Your task to perform on an android device: Go to notification settings Image 0: 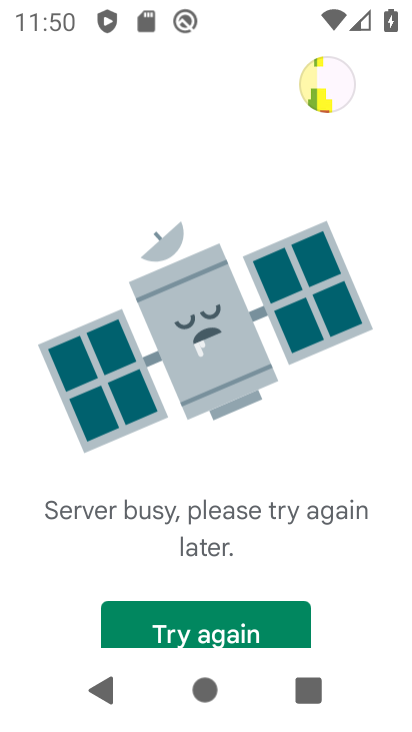
Step 0: press home button
Your task to perform on an android device: Go to notification settings Image 1: 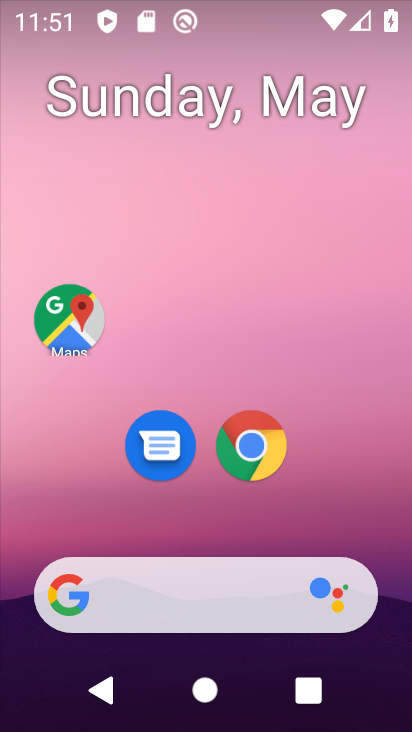
Step 1: drag from (286, 516) to (308, 57)
Your task to perform on an android device: Go to notification settings Image 2: 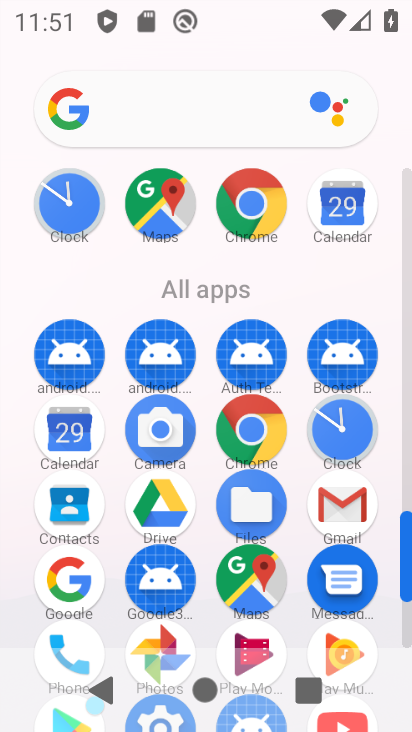
Step 2: drag from (201, 314) to (257, 45)
Your task to perform on an android device: Go to notification settings Image 3: 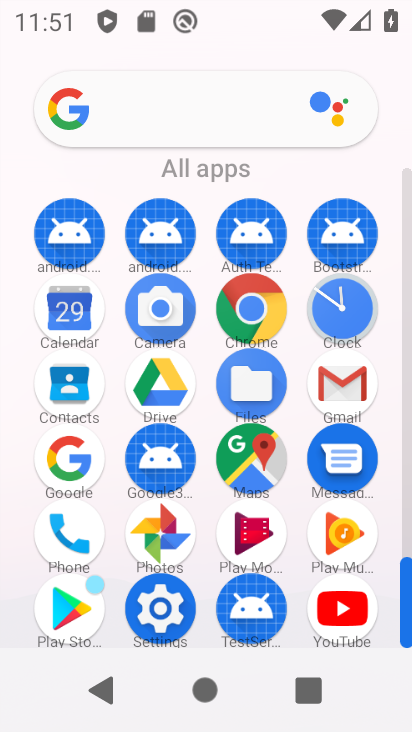
Step 3: click (160, 600)
Your task to perform on an android device: Go to notification settings Image 4: 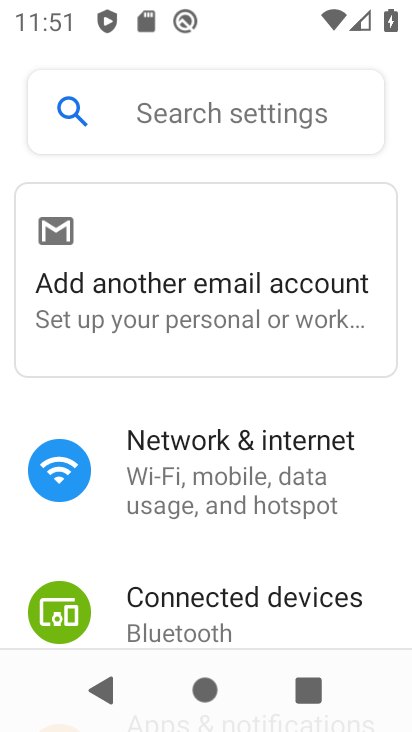
Step 4: drag from (330, 568) to (366, 184)
Your task to perform on an android device: Go to notification settings Image 5: 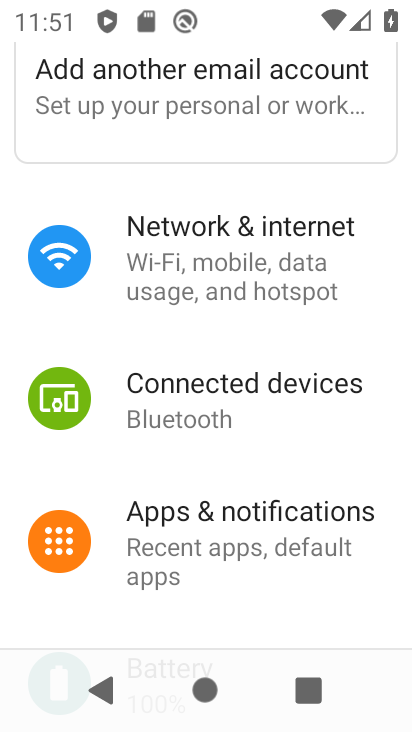
Step 5: click (250, 511)
Your task to perform on an android device: Go to notification settings Image 6: 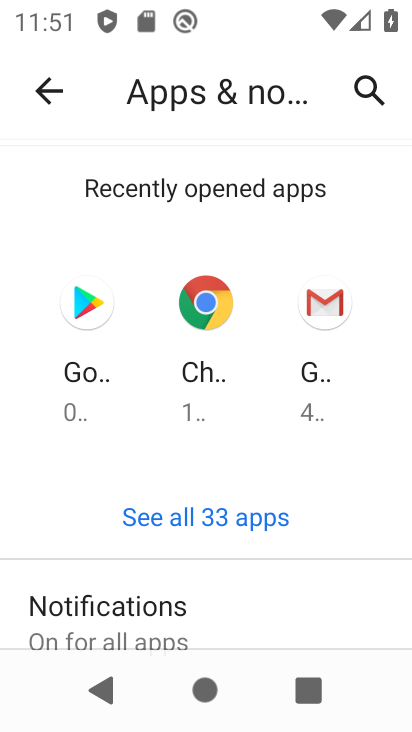
Step 6: click (105, 622)
Your task to perform on an android device: Go to notification settings Image 7: 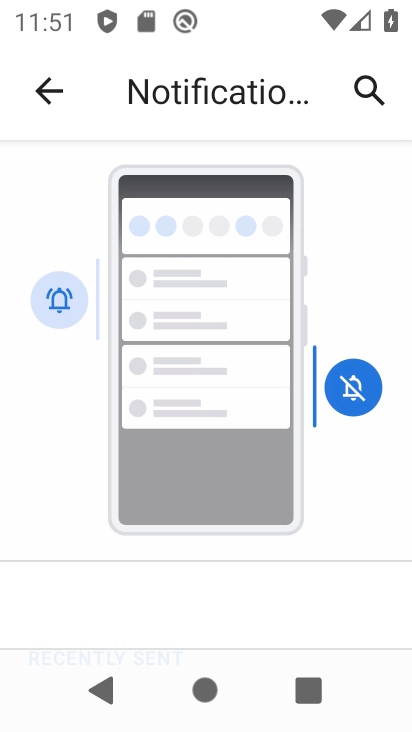
Step 7: task complete